Your task to perform on an android device: Open Chrome and go to the settings page Image 0: 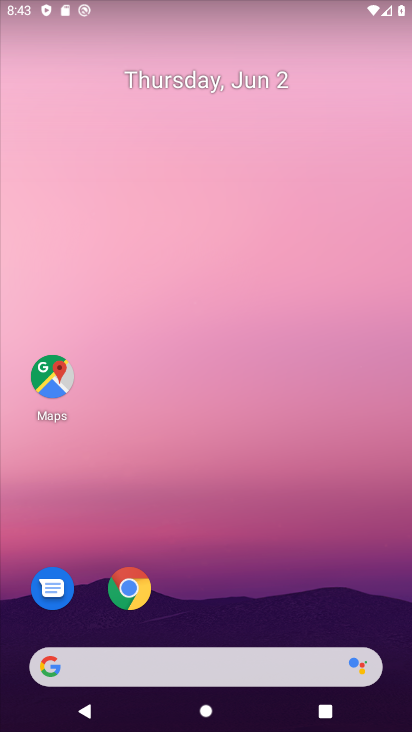
Step 0: click (120, 591)
Your task to perform on an android device: Open Chrome and go to the settings page Image 1: 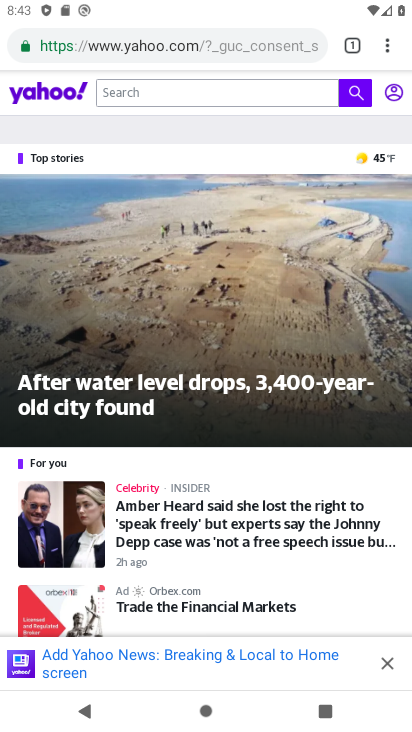
Step 1: click (390, 38)
Your task to perform on an android device: Open Chrome and go to the settings page Image 2: 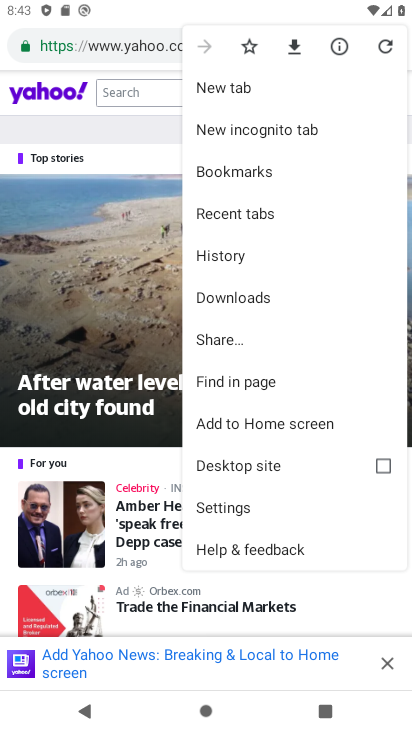
Step 2: click (263, 509)
Your task to perform on an android device: Open Chrome and go to the settings page Image 3: 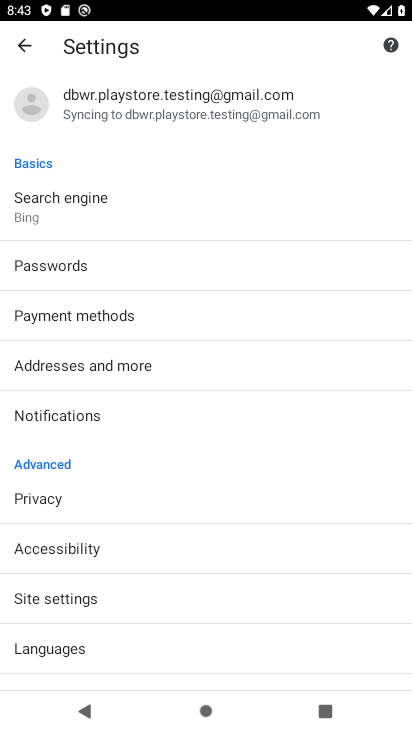
Step 3: task complete